Your task to perform on an android device: toggle notifications settings in the gmail app Image 0: 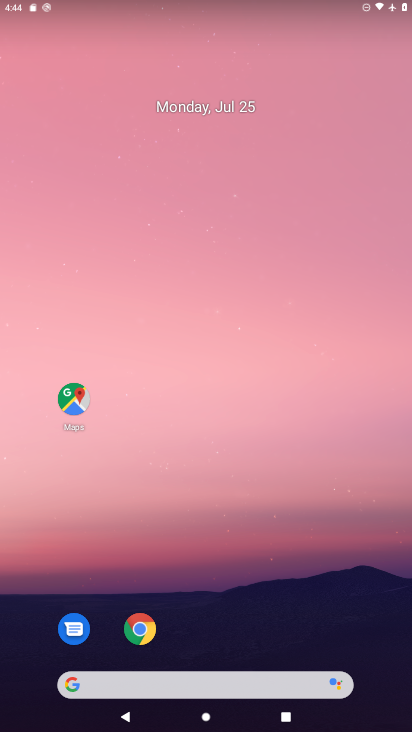
Step 0: drag from (306, 587) to (283, 13)
Your task to perform on an android device: toggle notifications settings in the gmail app Image 1: 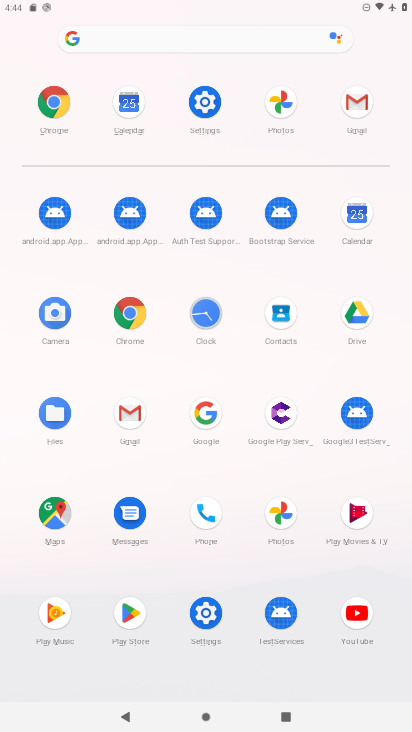
Step 1: click (124, 415)
Your task to perform on an android device: toggle notifications settings in the gmail app Image 2: 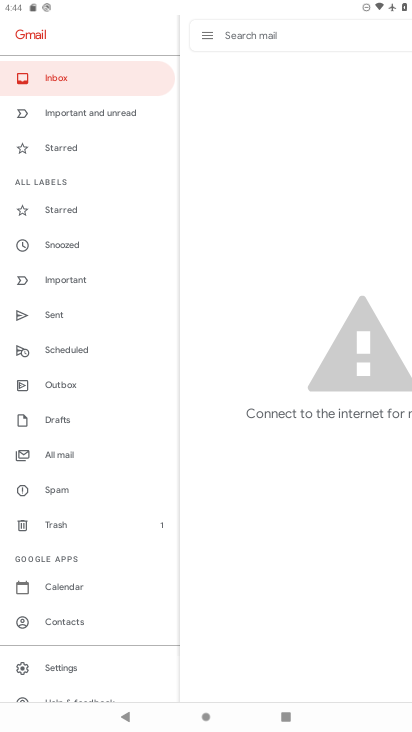
Step 2: click (59, 664)
Your task to perform on an android device: toggle notifications settings in the gmail app Image 3: 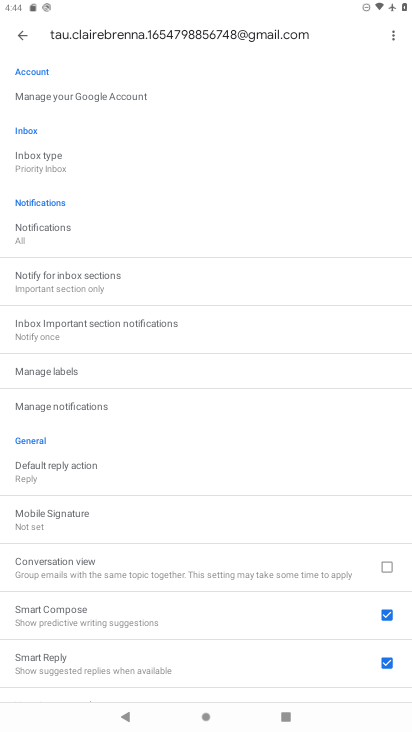
Step 3: click (101, 411)
Your task to perform on an android device: toggle notifications settings in the gmail app Image 4: 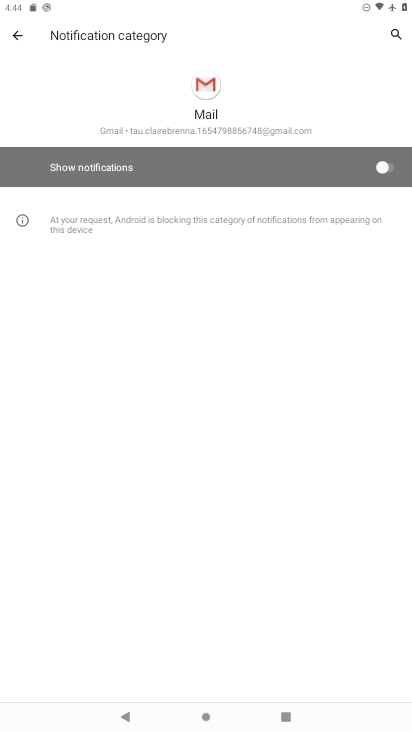
Step 4: click (392, 170)
Your task to perform on an android device: toggle notifications settings in the gmail app Image 5: 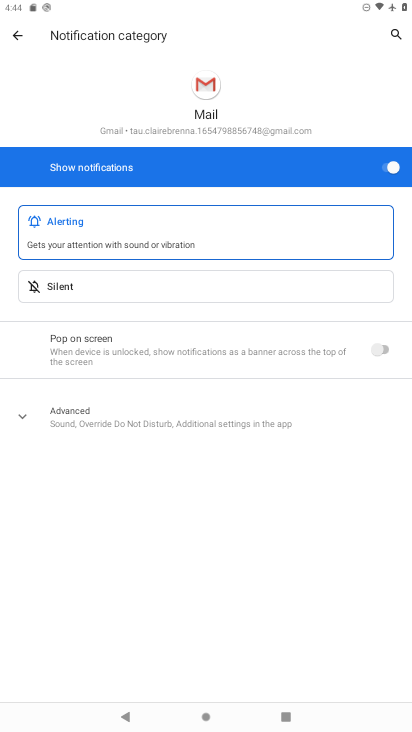
Step 5: task complete